Your task to perform on an android device: set default search engine in the chrome app Image 0: 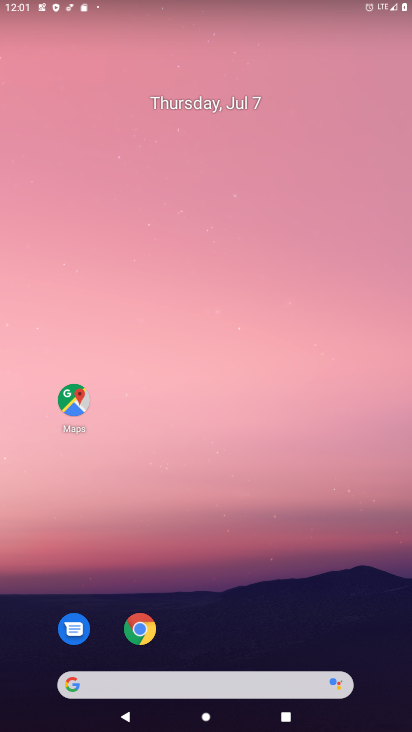
Step 0: click (140, 628)
Your task to perform on an android device: set default search engine in the chrome app Image 1: 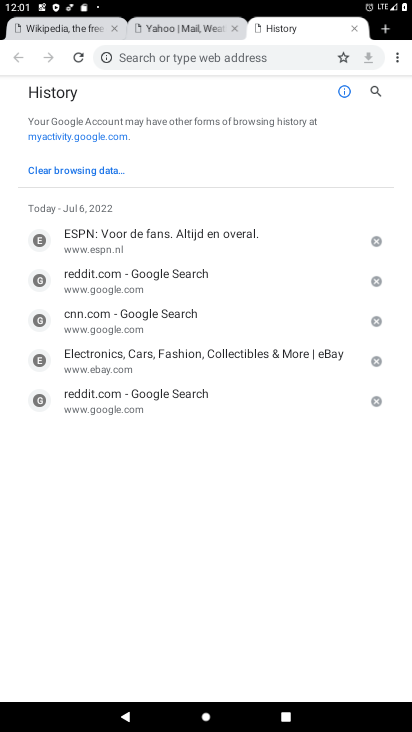
Step 1: click (396, 56)
Your task to perform on an android device: set default search engine in the chrome app Image 2: 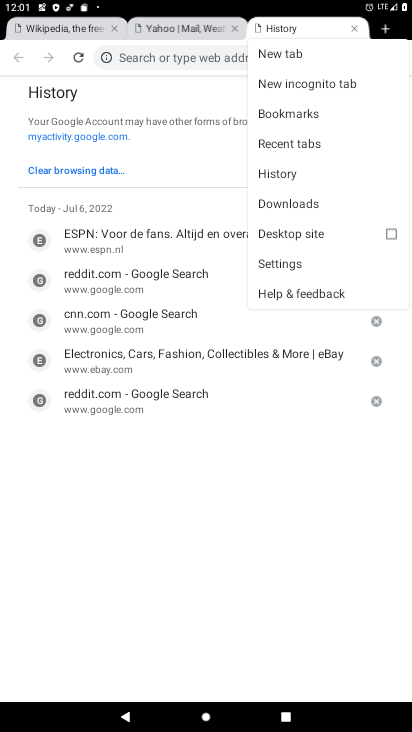
Step 2: click (288, 264)
Your task to perform on an android device: set default search engine in the chrome app Image 3: 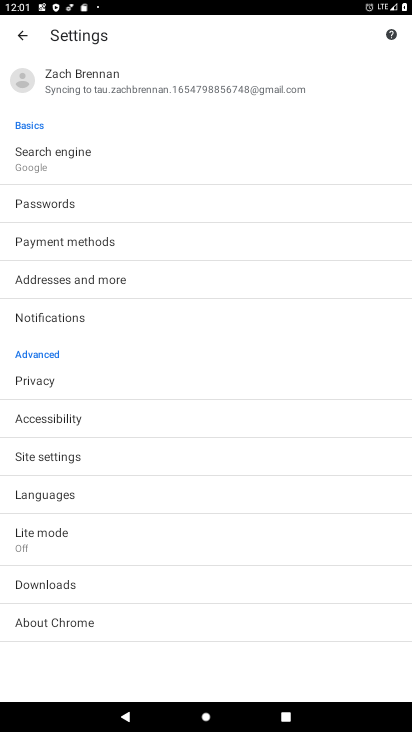
Step 3: click (81, 154)
Your task to perform on an android device: set default search engine in the chrome app Image 4: 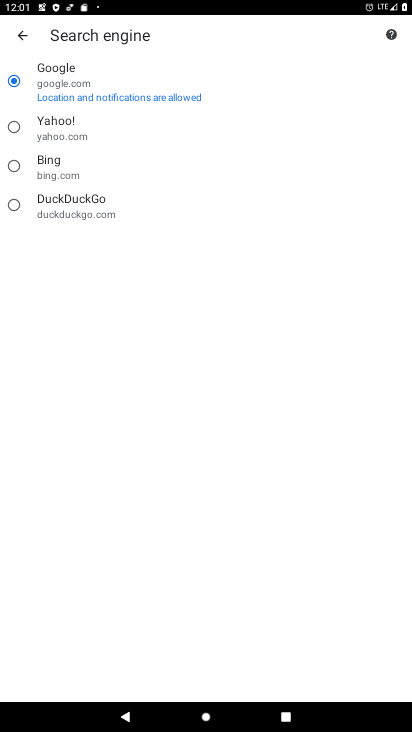
Step 4: click (16, 78)
Your task to perform on an android device: set default search engine in the chrome app Image 5: 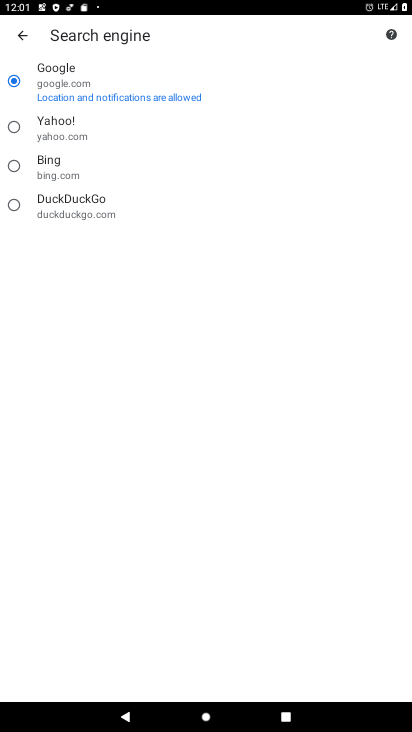
Step 5: task complete